Your task to perform on an android device: change text size in settings app Image 0: 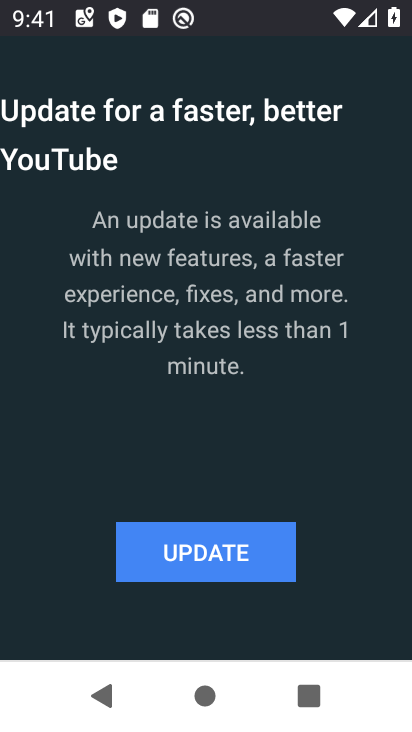
Step 0: press home button
Your task to perform on an android device: change text size in settings app Image 1: 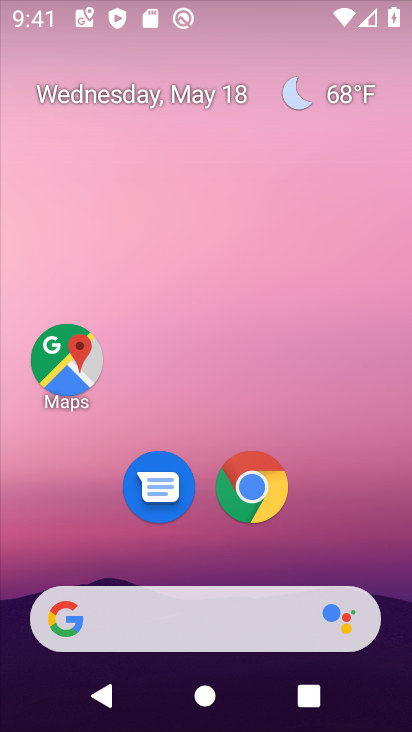
Step 1: drag from (330, 522) to (306, 190)
Your task to perform on an android device: change text size in settings app Image 2: 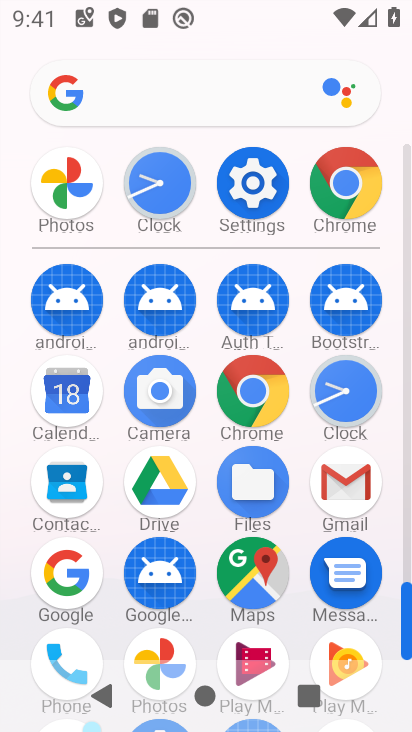
Step 2: click (255, 172)
Your task to perform on an android device: change text size in settings app Image 3: 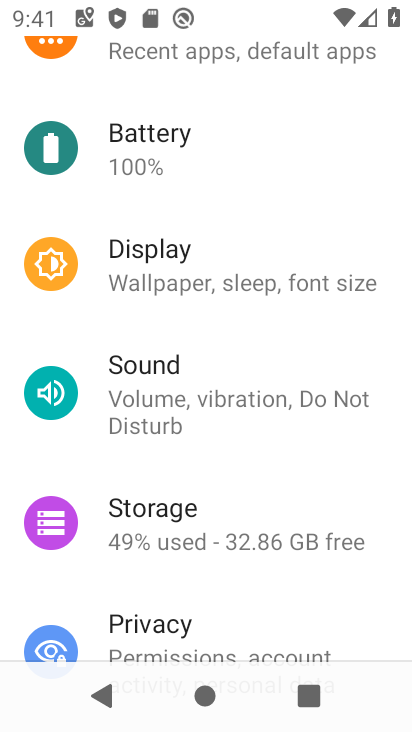
Step 3: drag from (305, 606) to (332, 268)
Your task to perform on an android device: change text size in settings app Image 4: 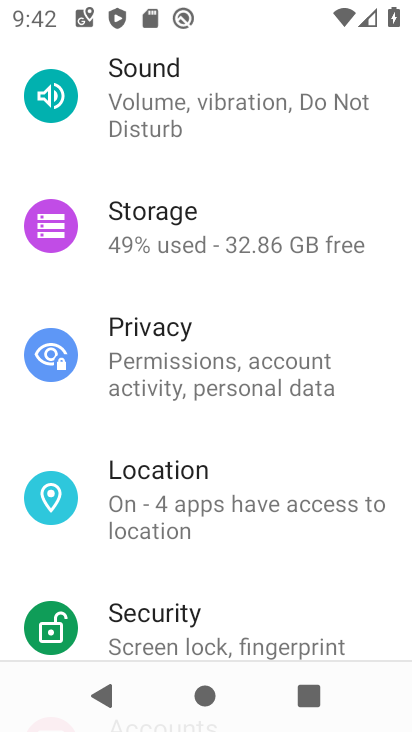
Step 4: drag from (250, 198) to (238, 523)
Your task to perform on an android device: change text size in settings app Image 5: 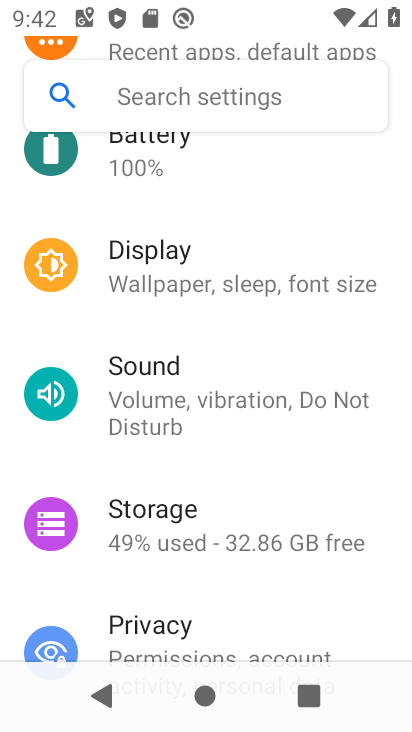
Step 5: click (194, 273)
Your task to perform on an android device: change text size in settings app Image 6: 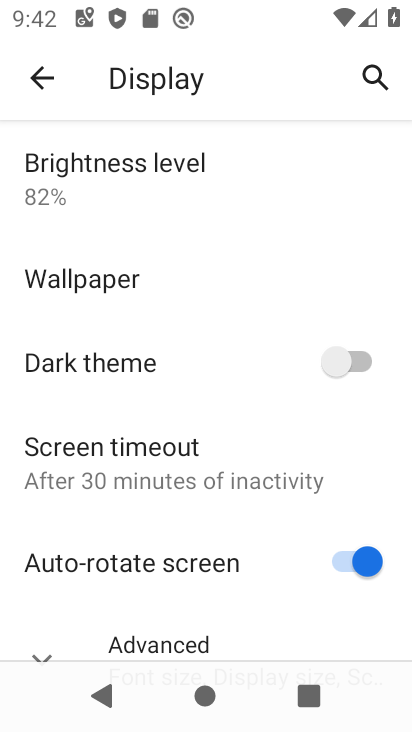
Step 6: drag from (246, 582) to (239, 296)
Your task to perform on an android device: change text size in settings app Image 7: 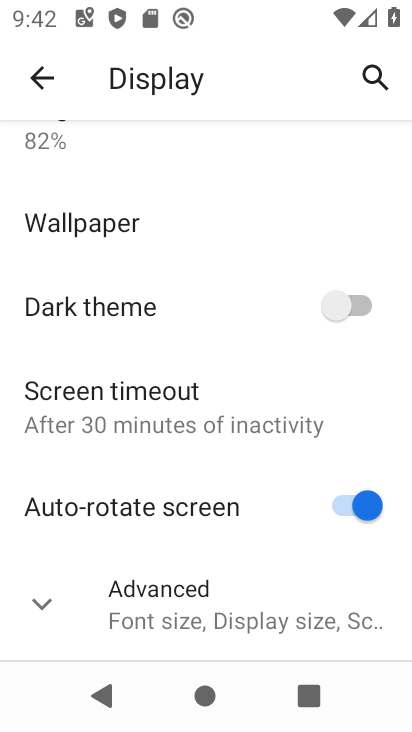
Step 7: click (178, 603)
Your task to perform on an android device: change text size in settings app Image 8: 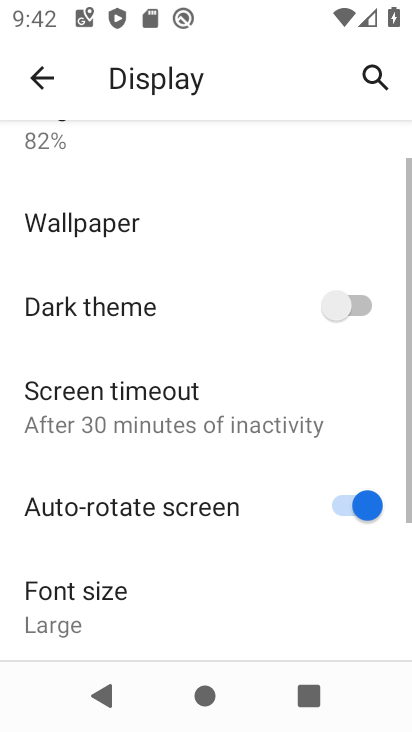
Step 8: drag from (179, 606) to (175, 269)
Your task to perform on an android device: change text size in settings app Image 9: 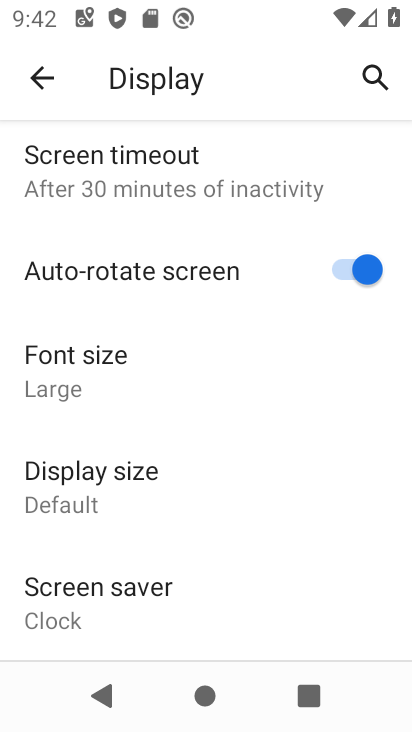
Step 9: click (101, 382)
Your task to perform on an android device: change text size in settings app Image 10: 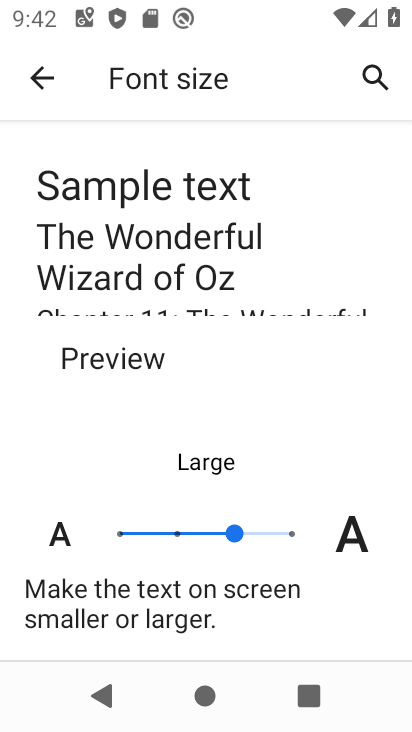
Step 10: click (119, 536)
Your task to perform on an android device: change text size in settings app Image 11: 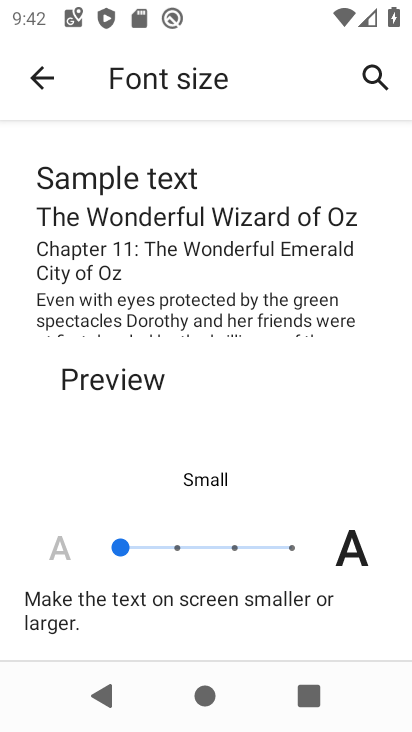
Step 11: task complete